Your task to perform on an android device: Clear the cart on costco.com. Image 0: 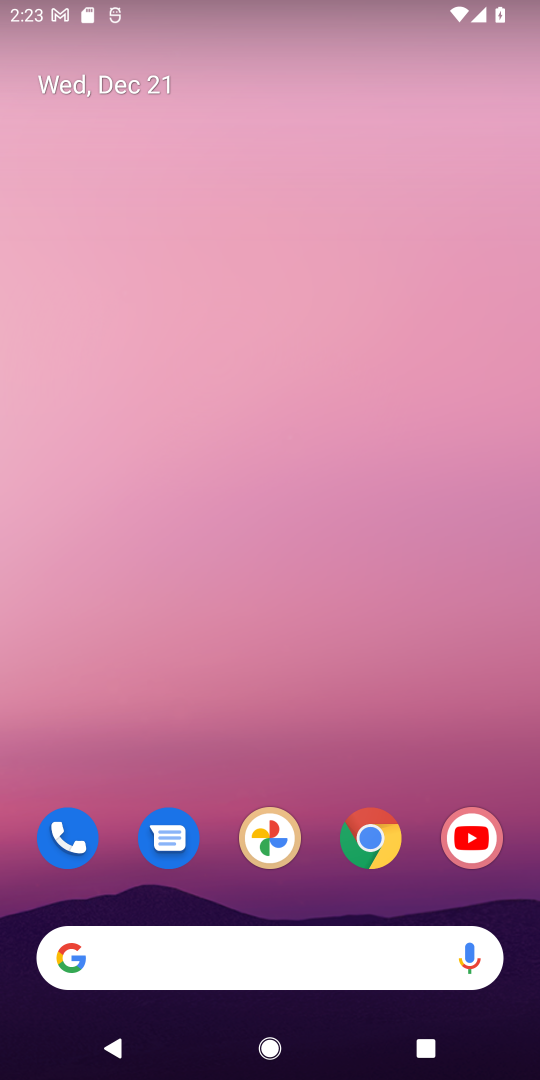
Step 0: click (369, 844)
Your task to perform on an android device: Clear the cart on costco.com. Image 1: 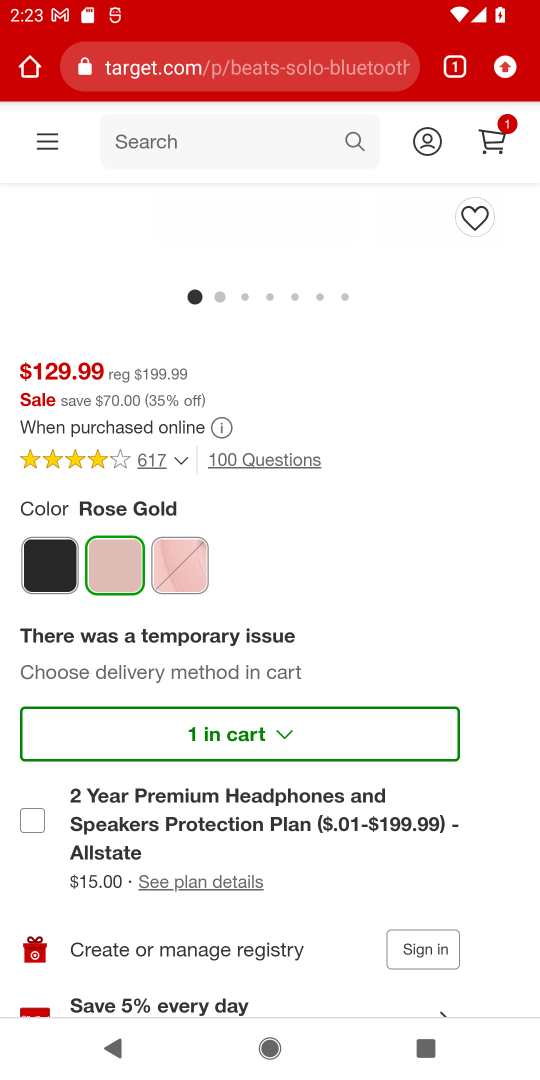
Step 1: click (281, 71)
Your task to perform on an android device: Clear the cart on costco.com. Image 2: 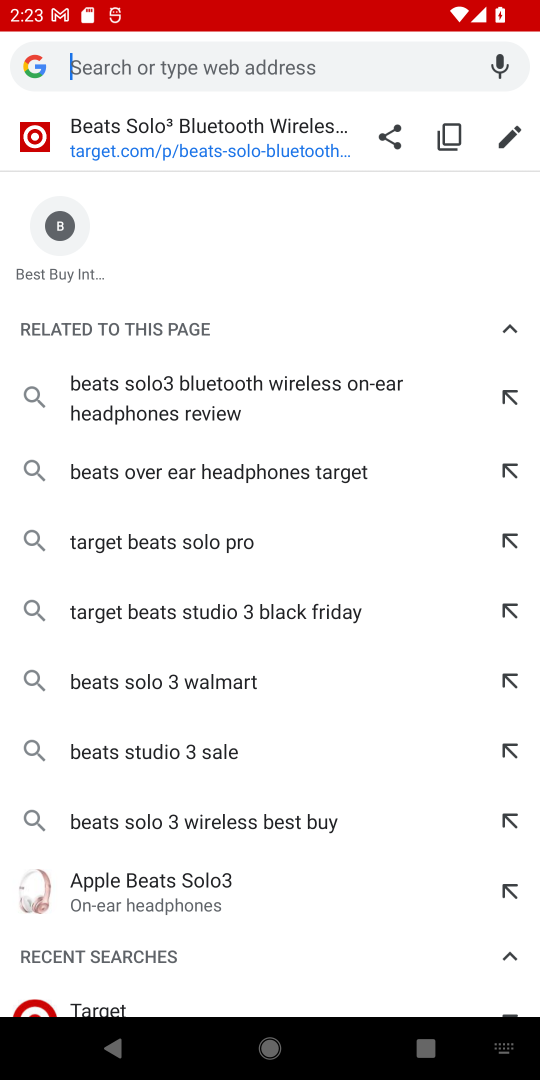
Step 2: type "costco"
Your task to perform on an android device: Clear the cart on costco.com. Image 3: 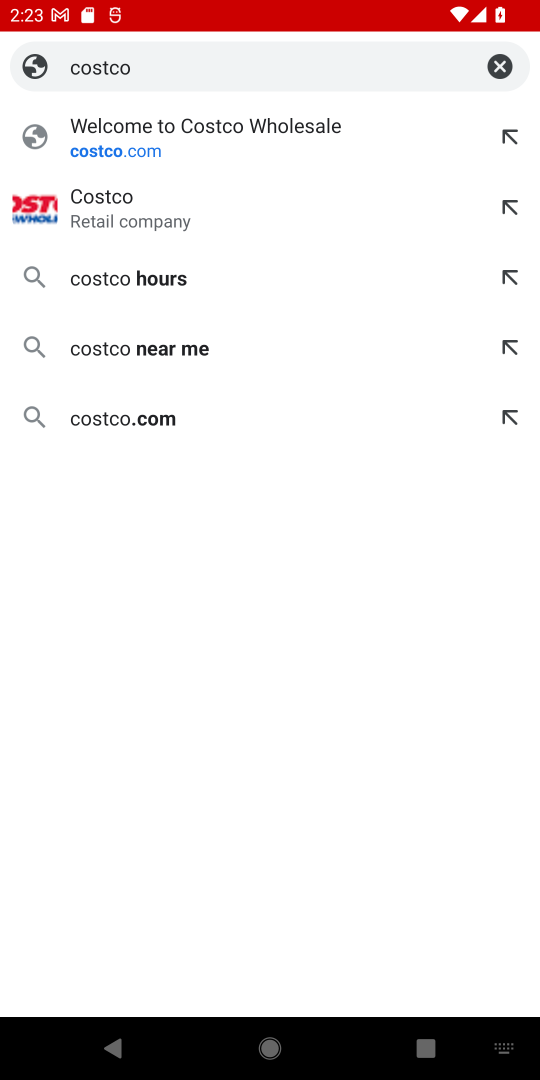
Step 3: click (162, 150)
Your task to perform on an android device: Clear the cart on costco.com. Image 4: 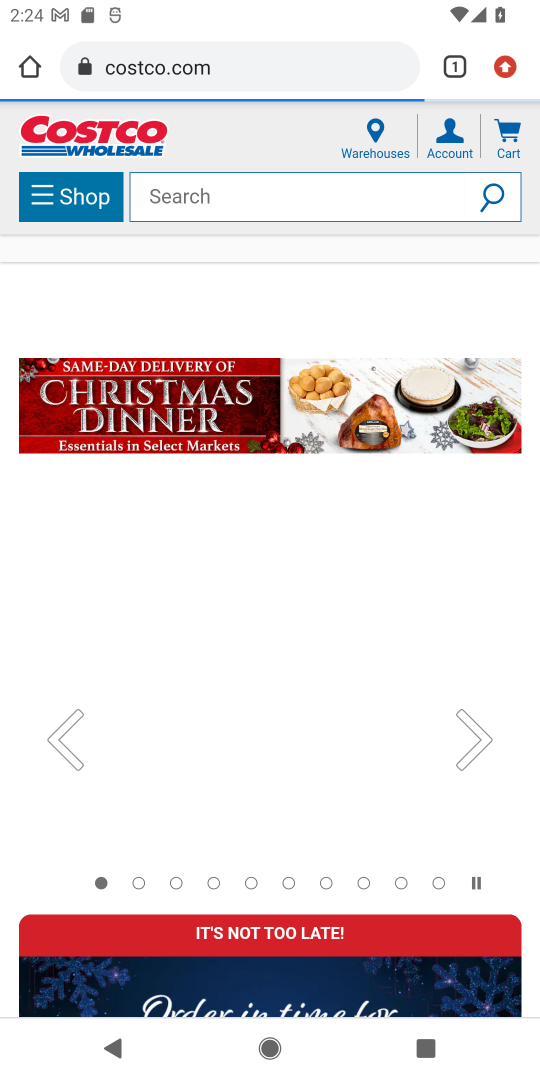
Step 4: click (302, 207)
Your task to perform on an android device: Clear the cart on costco.com. Image 5: 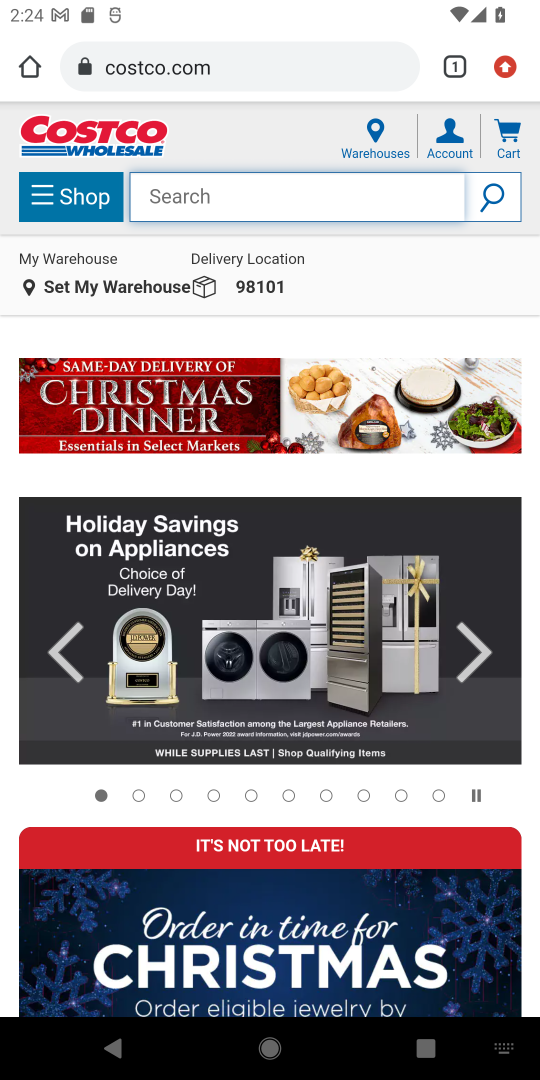
Step 5: click (508, 147)
Your task to perform on an android device: Clear the cart on costco.com. Image 6: 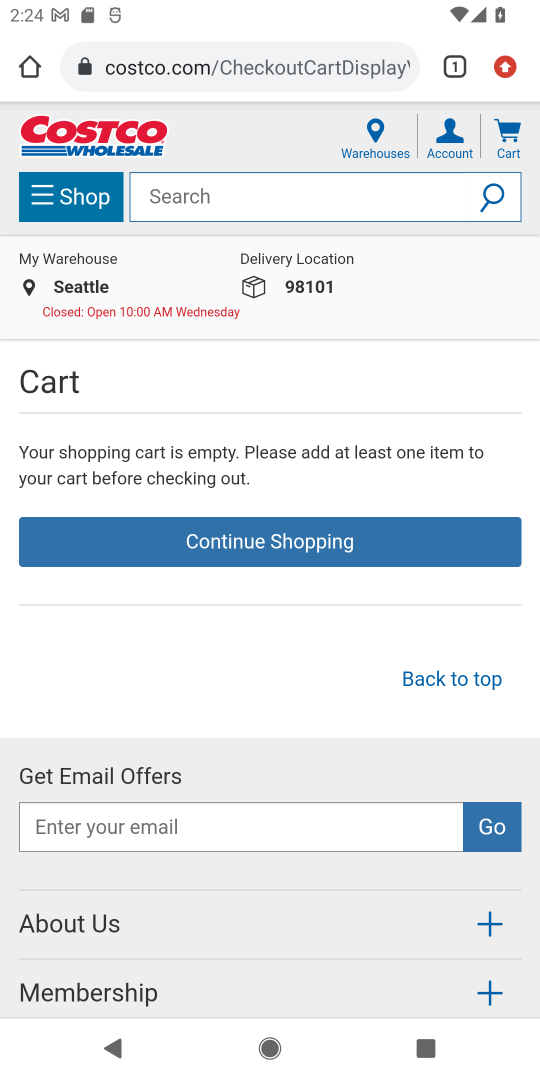
Step 6: task complete